Your task to perform on an android device: Open Youtube and go to "Your channel" Image 0: 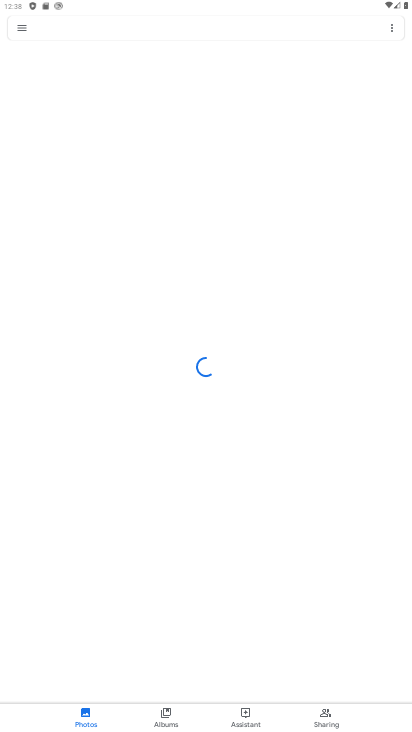
Step 0: press home button
Your task to perform on an android device: Open Youtube and go to "Your channel" Image 1: 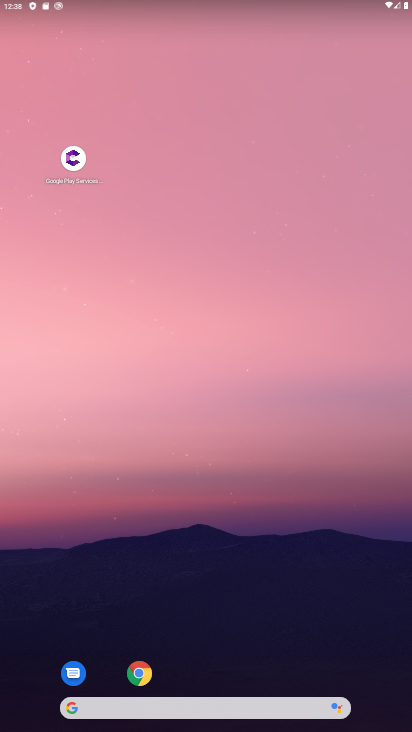
Step 1: drag from (206, 670) to (280, 100)
Your task to perform on an android device: Open Youtube and go to "Your channel" Image 2: 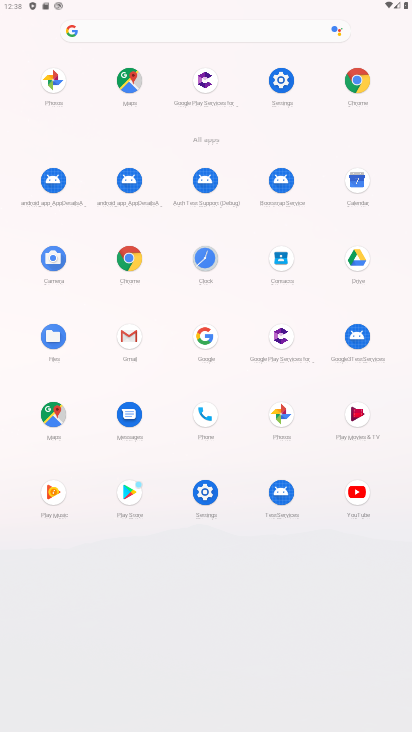
Step 2: click (363, 496)
Your task to perform on an android device: Open Youtube and go to "Your channel" Image 3: 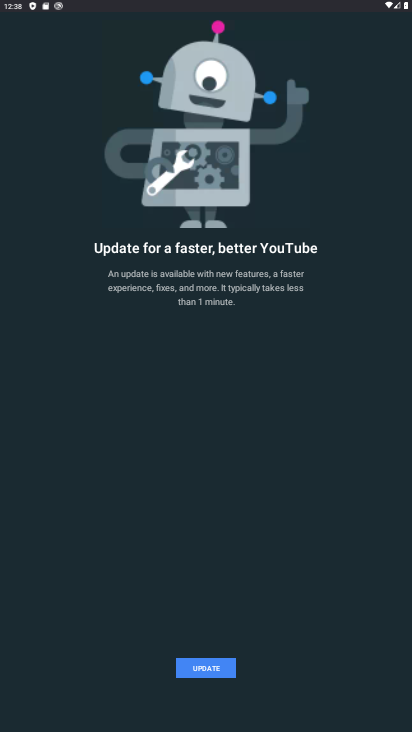
Step 3: click (198, 677)
Your task to perform on an android device: Open Youtube and go to "Your channel" Image 4: 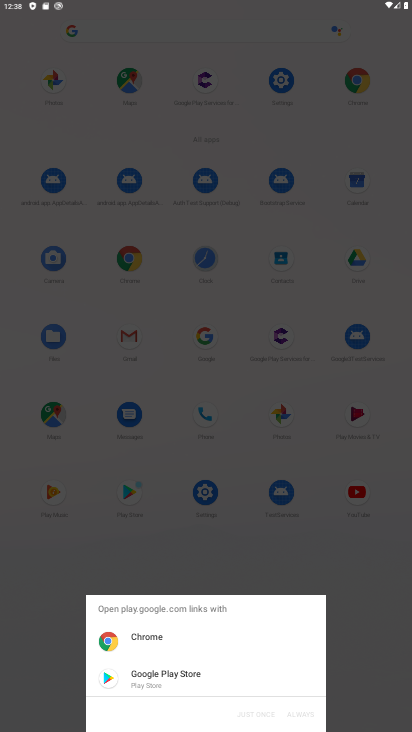
Step 4: click (189, 666)
Your task to perform on an android device: Open Youtube and go to "Your channel" Image 5: 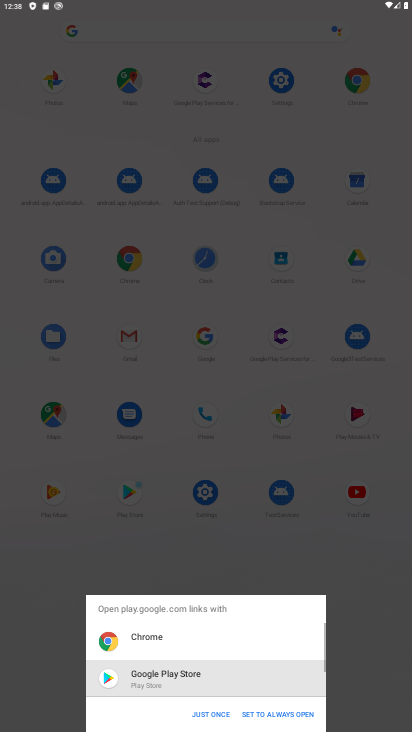
Step 5: click (222, 714)
Your task to perform on an android device: Open Youtube and go to "Your channel" Image 6: 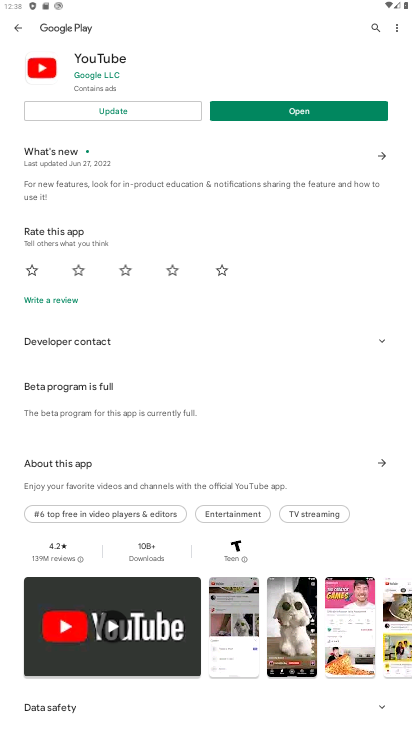
Step 6: click (159, 111)
Your task to perform on an android device: Open Youtube and go to "Your channel" Image 7: 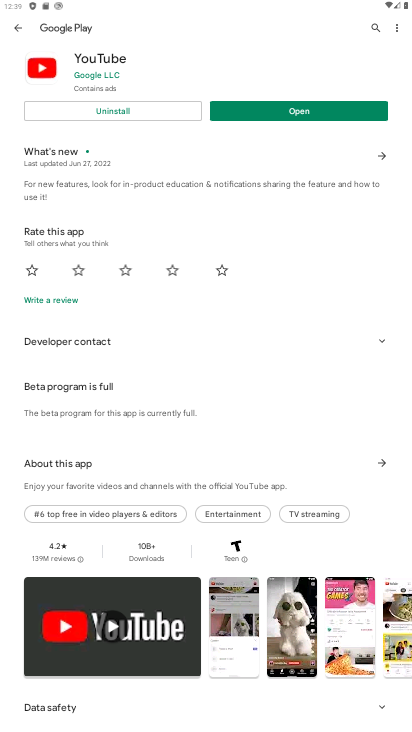
Step 7: click (327, 110)
Your task to perform on an android device: Open Youtube and go to "Your channel" Image 8: 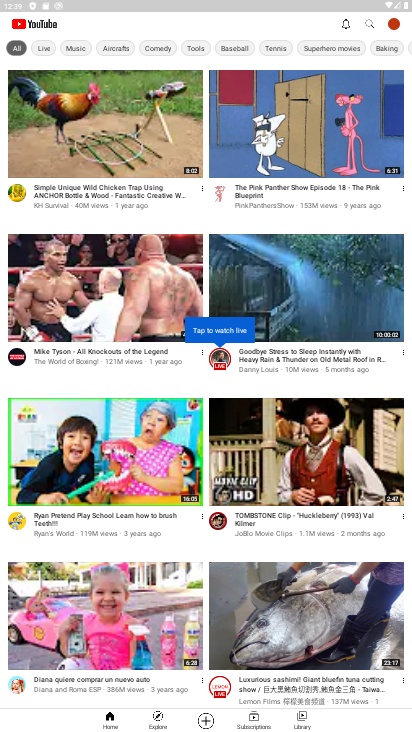
Step 8: click (388, 22)
Your task to perform on an android device: Open Youtube and go to "Your channel" Image 9: 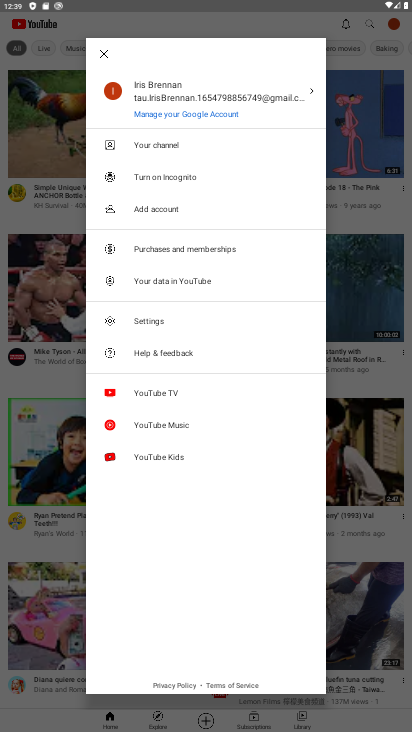
Step 9: click (201, 141)
Your task to perform on an android device: Open Youtube and go to "Your channel" Image 10: 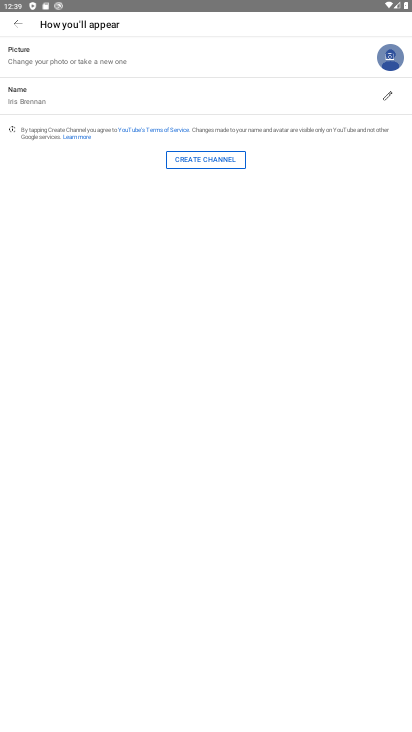
Step 10: task complete